Your task to perform on an android device: Is it going to rain today? Image 0: 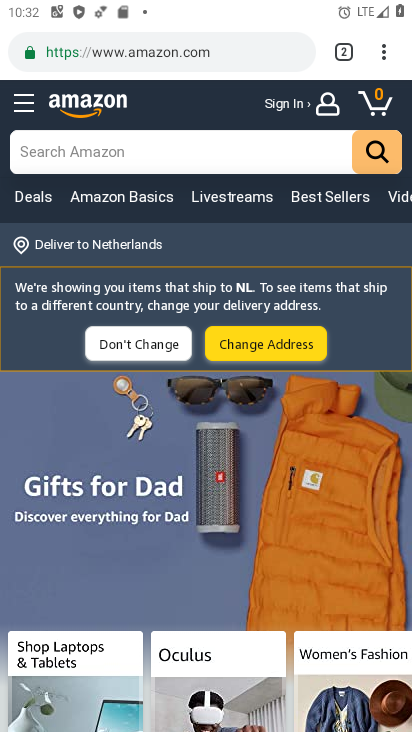
Step 0: press home button
Your task to perform on an android device: Is it going to rain today? Image 1: 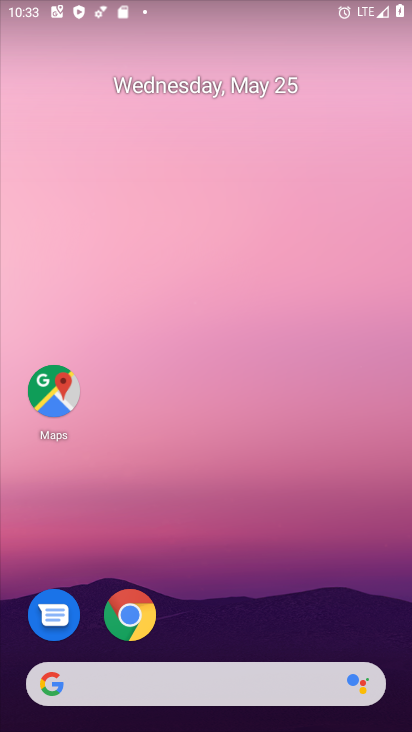
Step 1: click (207, 687)
Your task to perform on an android device: Is it going to rain today? Image 2: 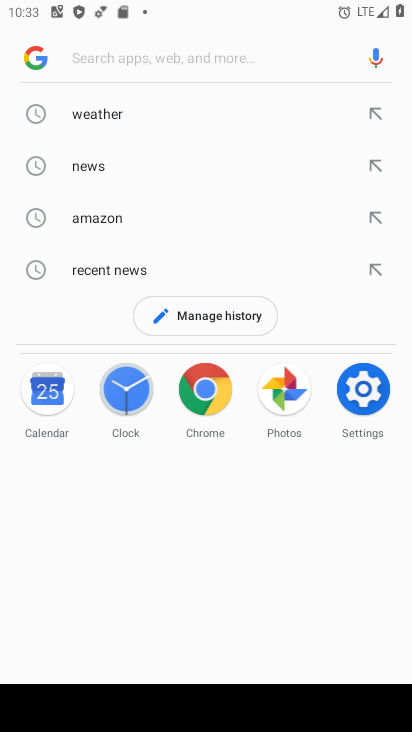
Step 2: click (90, 116)
Your task to perform on an android device: Is it going to rain today? Image 3: 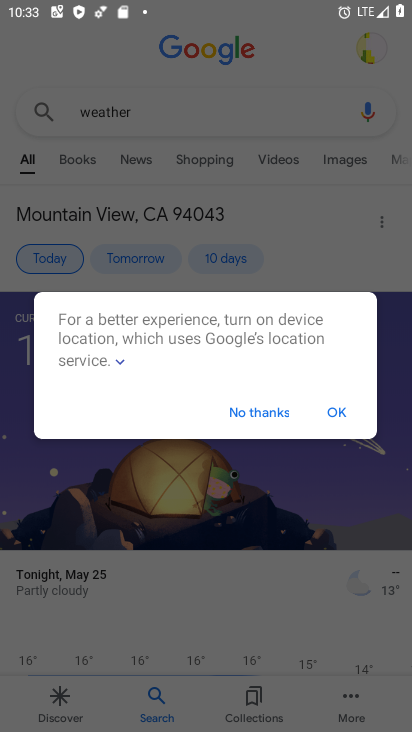
Step 3: click (278, 411)
Your task to perform on an android device: Is it going to rain today? Image 4: 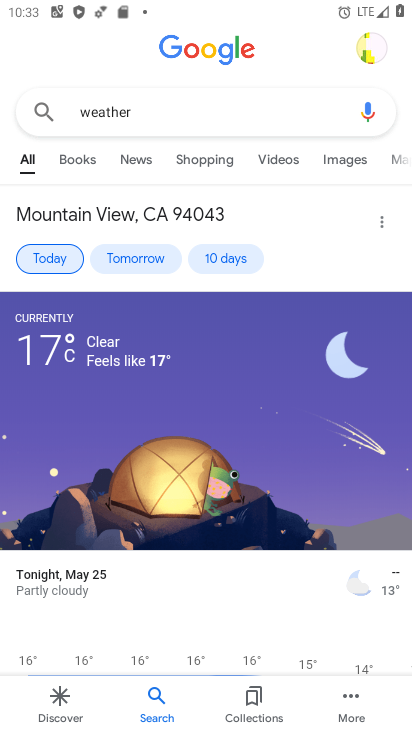
Step 4: click (56, 261)
Your task to perform on an android device: Is it going to rain today? Image 5: 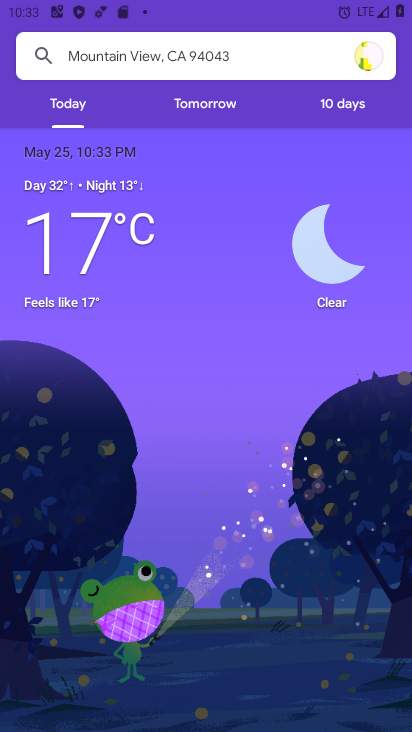
Step 5: task complete